Your task to perform on an android device: Check the news Image 0: 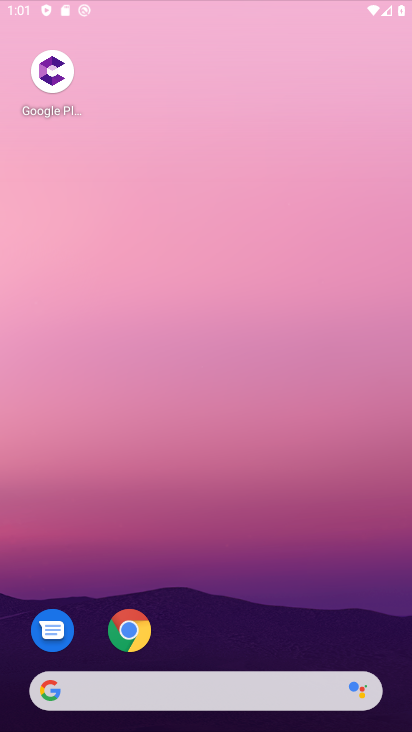
Step 0: click (185, 274)
Your task to perform on an android device: Check the news Image 1: 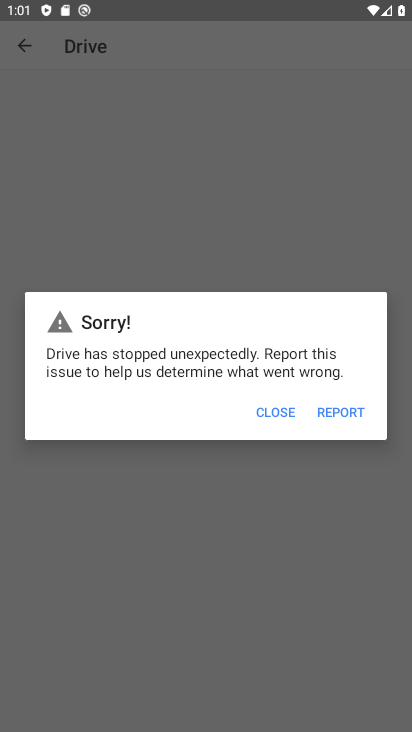
Step 1: press home button
Your task to perform on an android device: Check the news Image 2: 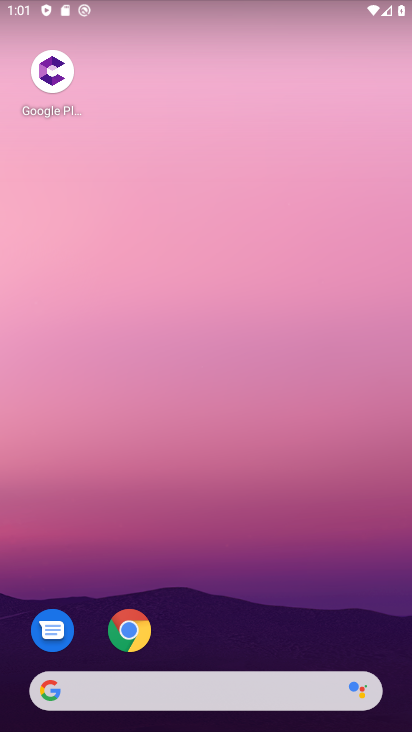
Step 2: drag from (272, 692) to (318, 219)
Your task to perform on an android device: Check the news Image 3: 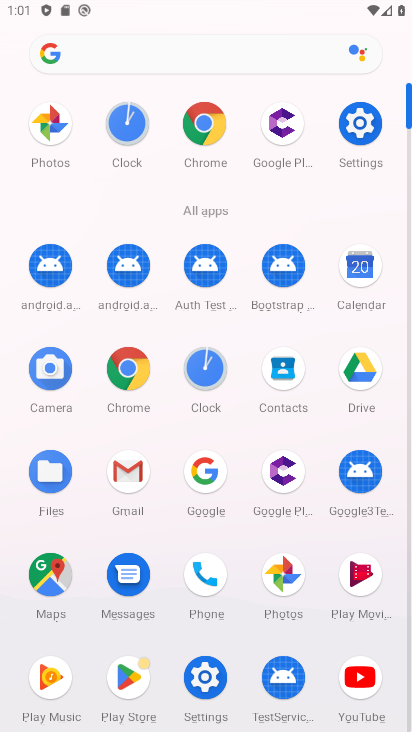
Step 3: click (373, 141)
Your task to perform on an android device: Check the news Image 4: 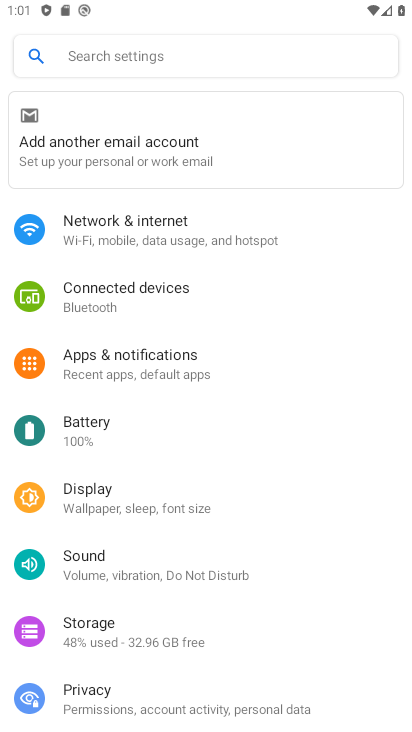
Step 4: click (81, 58)
Your task to perform on an android device: Check the news Image 5: 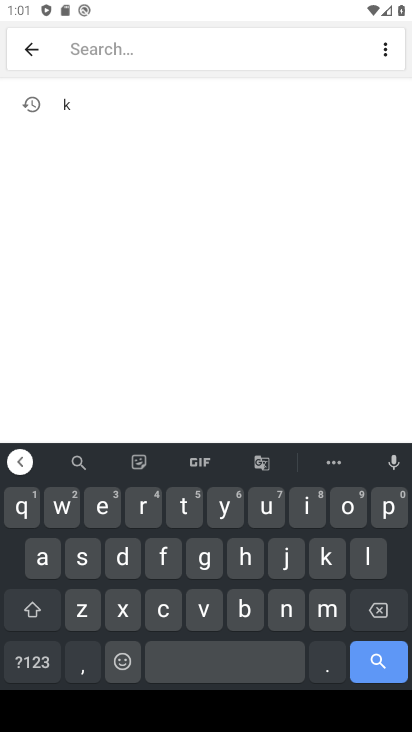
Step 5: click (284, 632)
Your task to perform on an android device: Check the news Image 6: 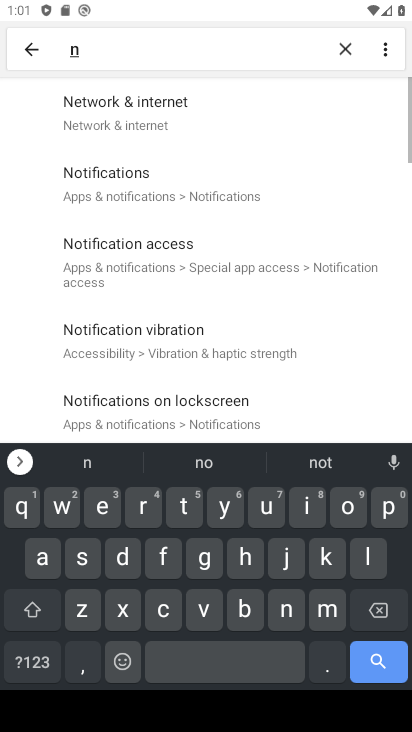
Step 6: click (350, 515)
Your task to perform on an android device: Check the news Image 7: 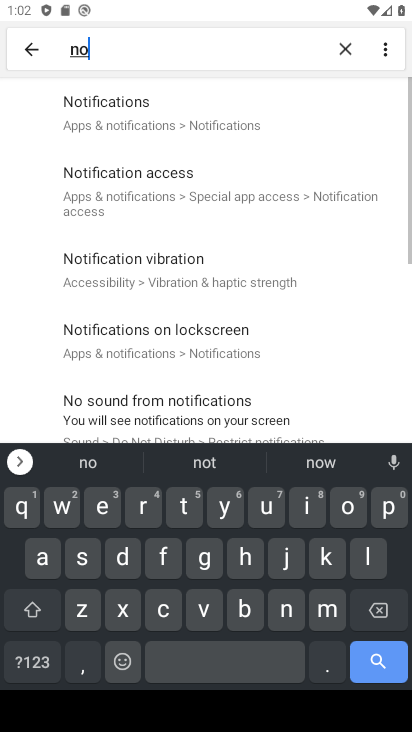
Step 7: click (85, 128)
Your task to perform on an android device: Check the news Image 8: 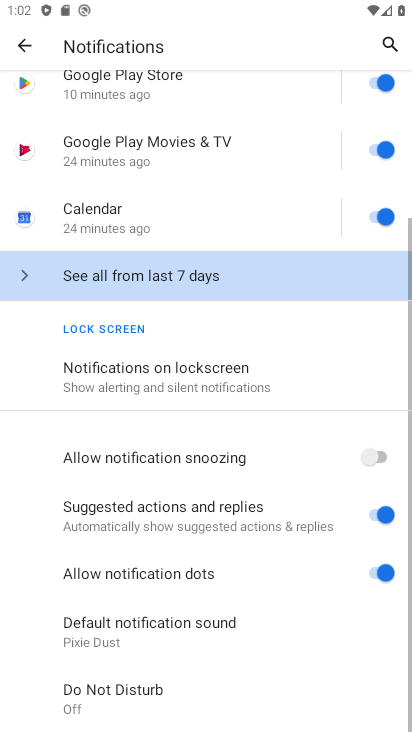
Step 8: click (143, 365)
Your task to perform on an android device: Check the news Image 9: 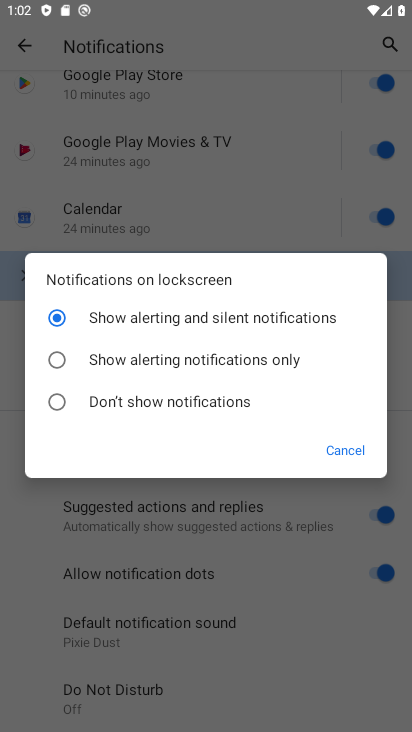
Step 9: press home button
Your task to perform on an android device: Check the news Image 10: 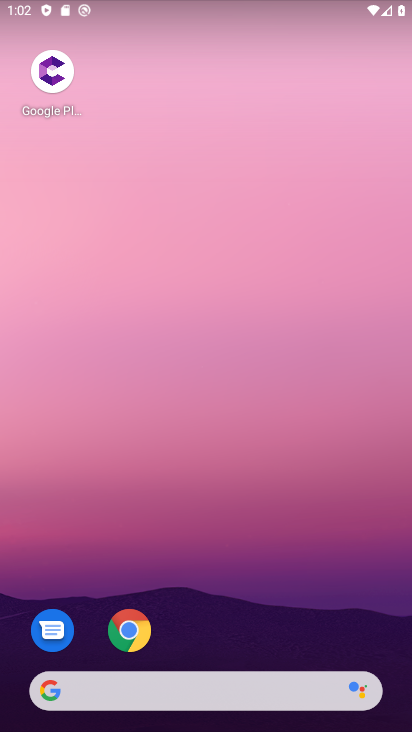
Step 10: click (188, 695)
Your task to perform on an android device: Check the news Image 11: 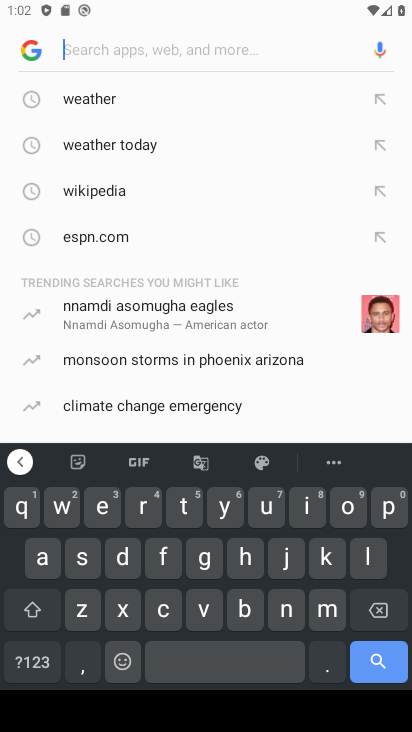
Step 11: click (279, 614)
Your task to perform on an android device: Check the news Image 12: 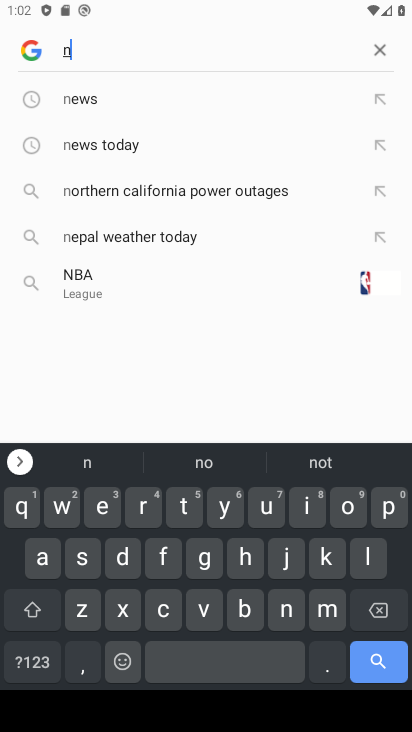
Step 12: click (110, 103)
Your task to perform on an android device: Check the news Image 13: 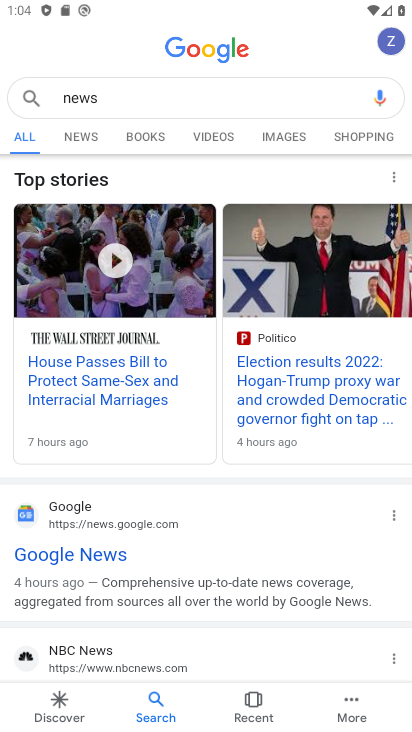
Step 13: task complete